Your task to perform on an android device: change the clock display to analog Image 0: 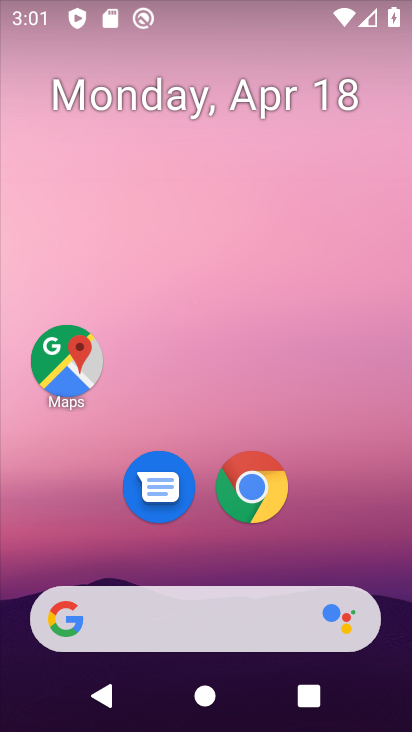
Step 0: drag from (318, 405) to (368, 0)
Your task to perform on an android device: change the clock display to analog Image 1: 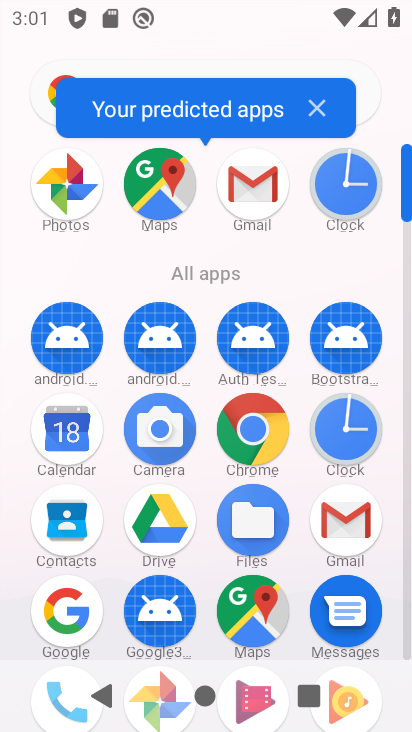
Step 1: drag from (18, 502) to (26, 248)
Your task to perform on an android device: change the clock display to analog Image 2: 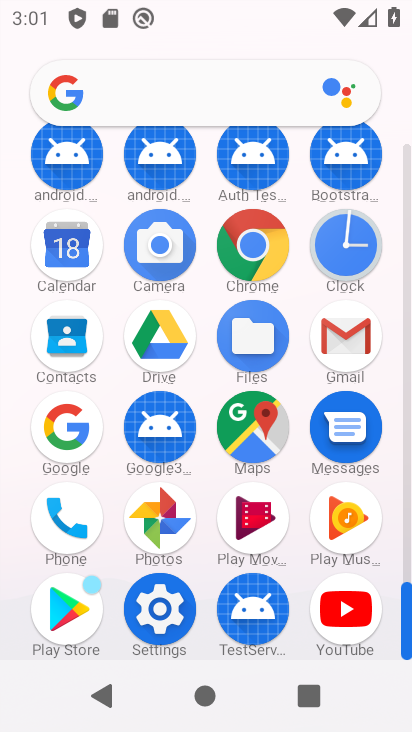
Step 2: click (350, 236)
Your task to perform on an android device: change the clock display to analog Image 3: 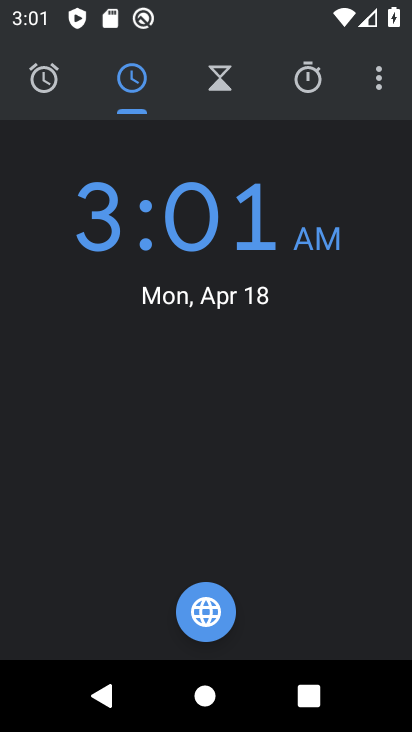
Step 3: click (376, 83)
Your task to perform on an android device: change the clock display to analog Image 4: 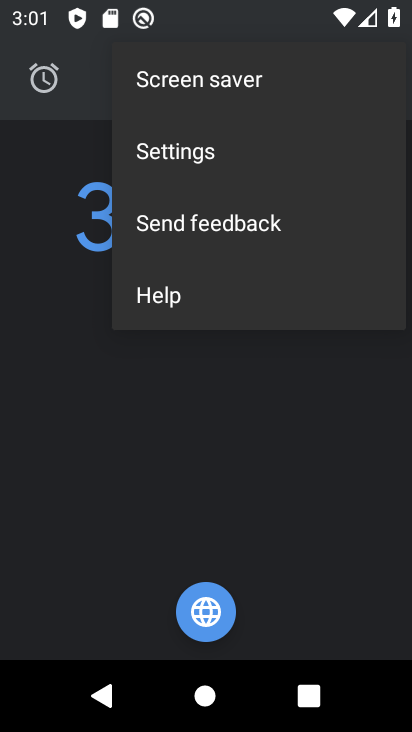
Step 4: click (208, 139)
Your task to perform on an android device: change the clock display to analog Image 5: 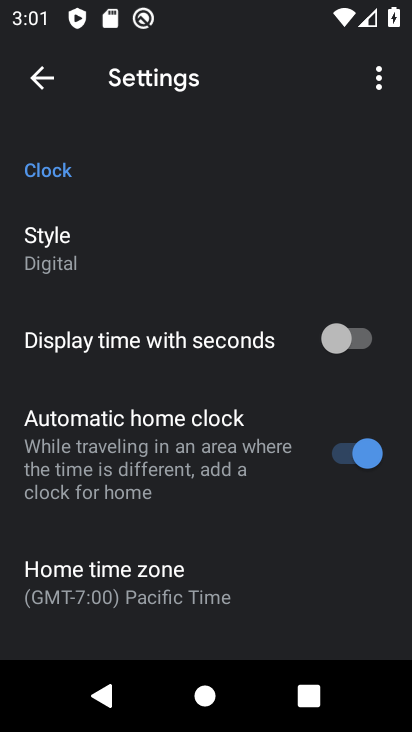
Step 5: click (93, 237)
Your task to perform on an android device: change the clock display to analog Image 6: 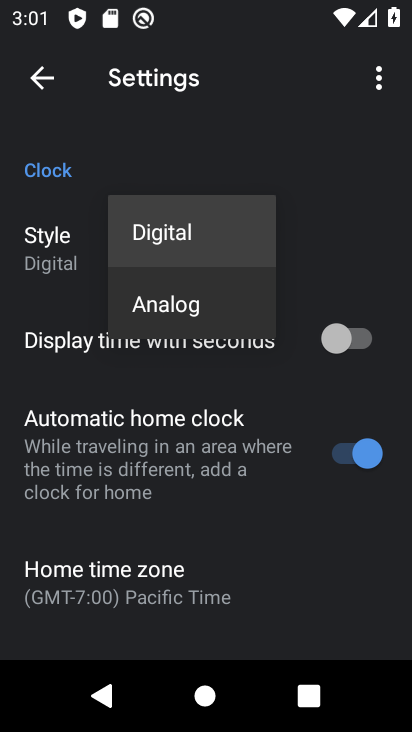
Step 6: click (182, 309)
Your task to perform on an android device: change the clock display to analog Image 7: 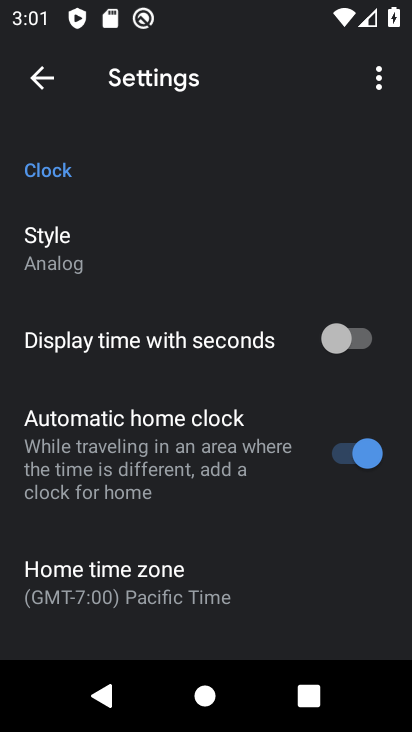
Step 7: task complete